Your task to perform on an android device: Go to network settings Image 0: 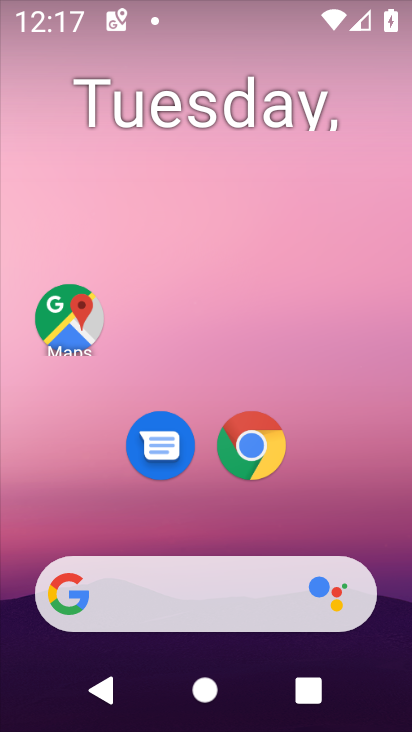
Step 0: drag from (370, 546) to (370, 231)
Your task to perform on an android device: Go to network settings Image 1: 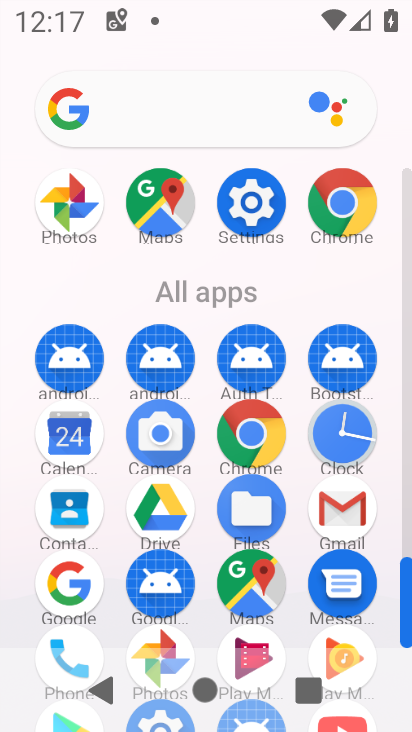
Step 1: drag from (393, 539) to (387, 330)
Your task to perform on an android device: Go to network settings Image 2: 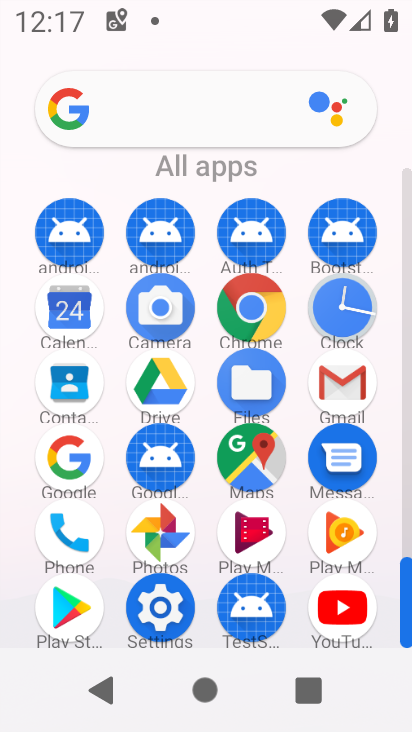
Step 2: click (186, 617)
Your task to perform on an android device: Go to network settings Image 3: 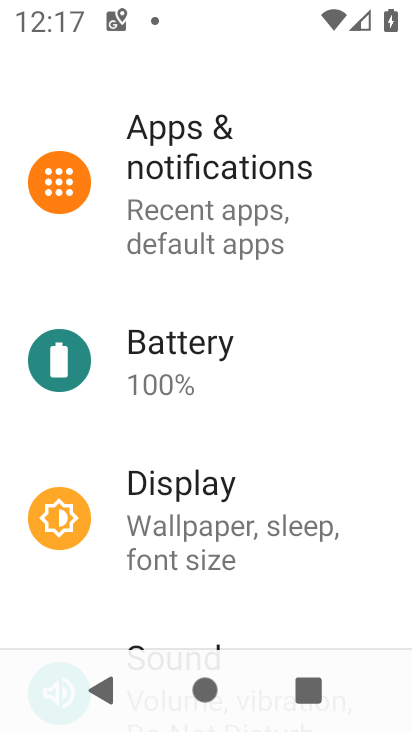
Step 3: drag from (352, 324) to (355, 451)
Your task to perform on an android device: Go to network settings Image 4: 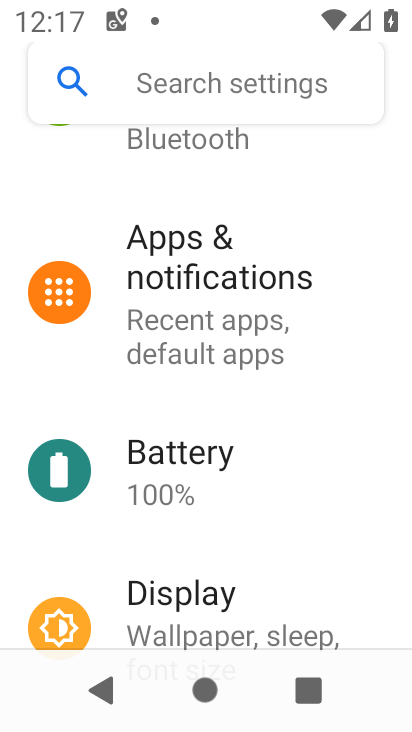
Step 4: drag from (354, 349) to (343, 483)
Your task to perform on an android device: Go to network settings Image 5: 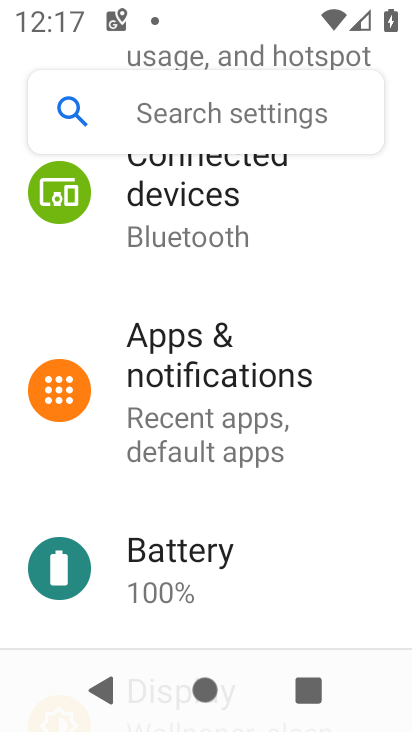
Step 5: drag from (347, 363) to (332, 460)
Your task to perform on an android device: Go to network settings Image 6: 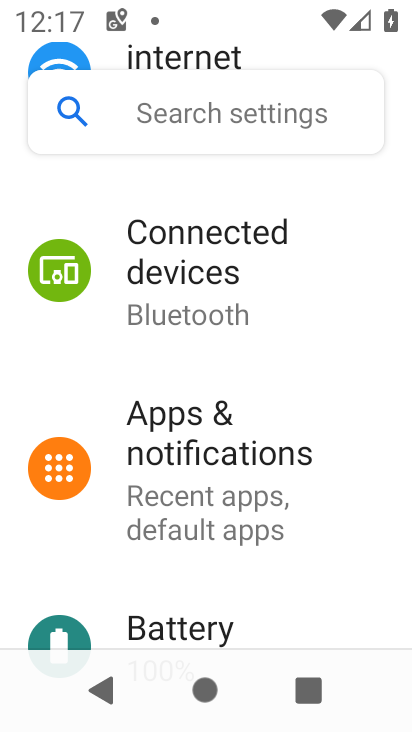
Step 6: drag from (343, 344) to (348, 442)
Your task to perform on an android device: Go to network settings Image 7: 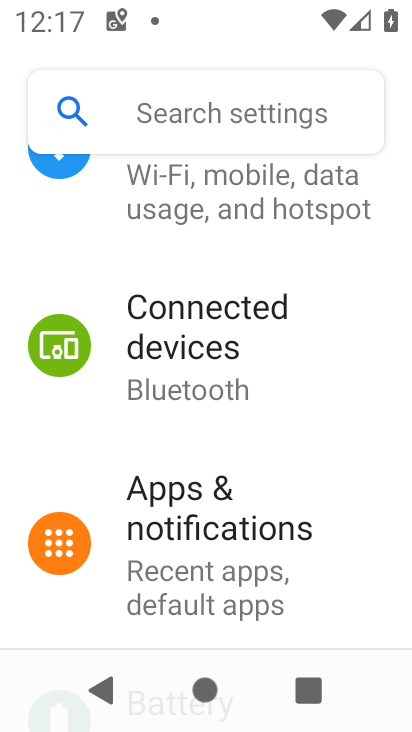
Step 7: drag from (335, 341) to (328, 448)
Your task to perform on an android device: Go to network settings Image 8: 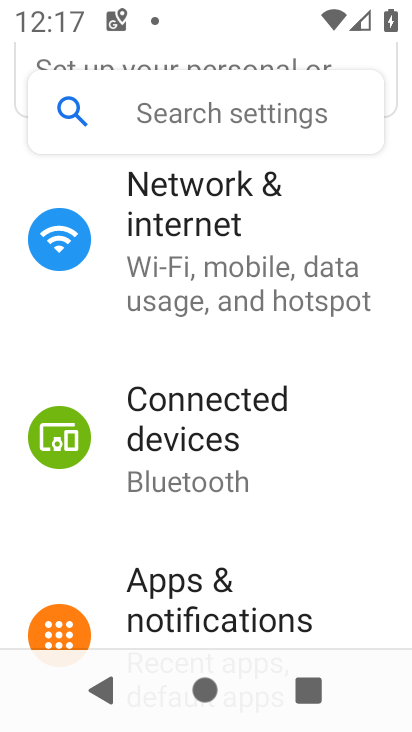
Step 8: drag from (358, 351) to (361, 460)
Your task to perform on an android device: Go to network settings Image 9: 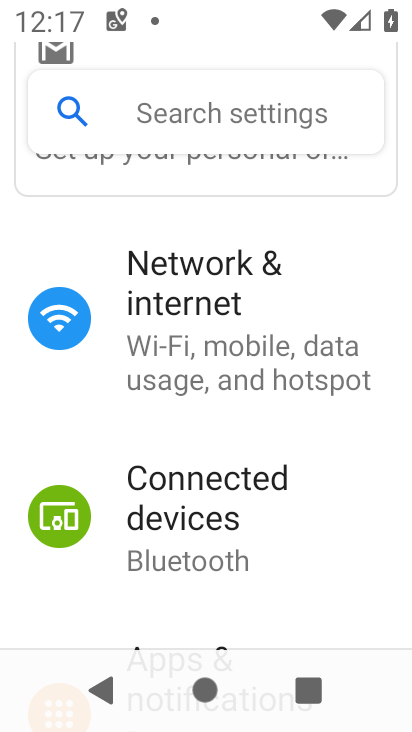
Step 9: drag from (375, 293) to (382, 418)
Your task to perform on an android device: Go to network settings Image 10: 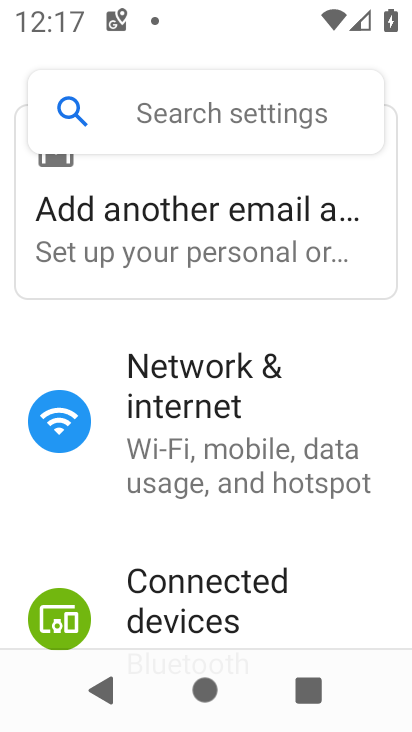
Step 10: click (273, 432)
Your task to perform on an android device: Go to network settings Image 11: 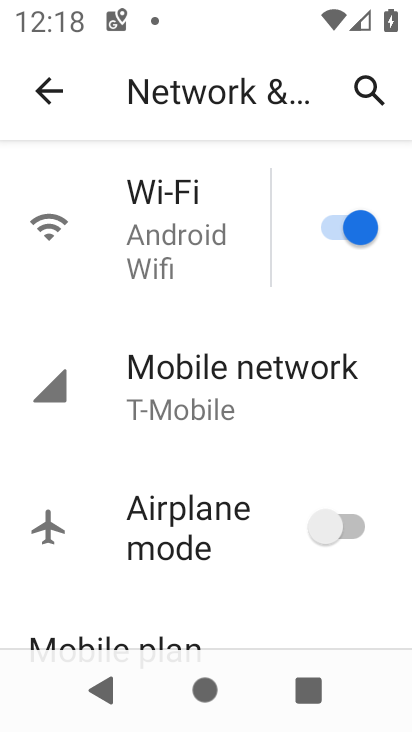
Step 11: task complete